Your task to perform on an android device: open the mobile data screen to see how much data has been used Image 0: 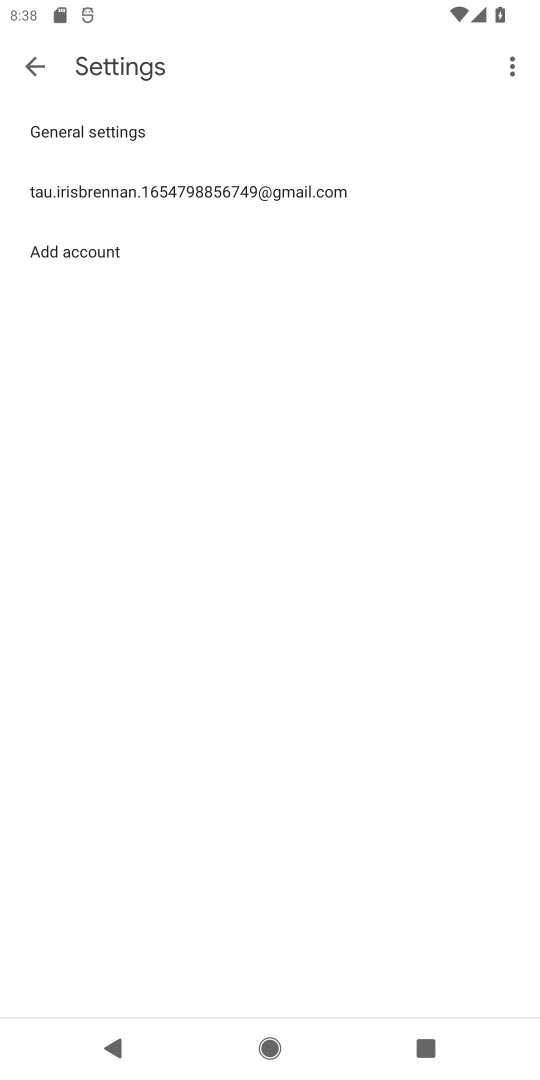
Step 0: click (26, 58)
Your task to perform on an android device: open the mobile data screen to see how much data has been used Image 1: 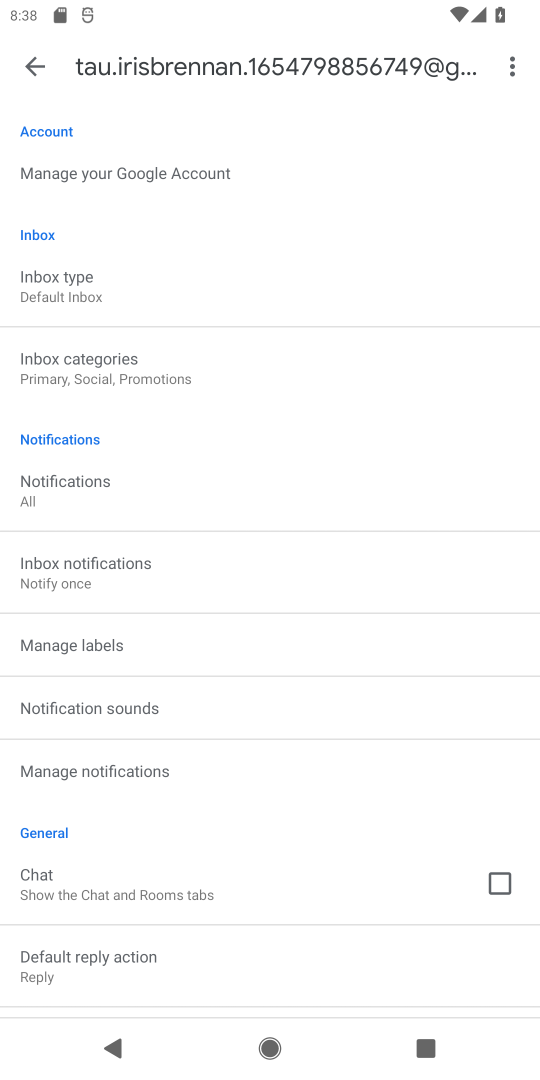
Step 1: click (36, 56)
Your task to perform on an android device: open the mobile data screen to see how much data has been used Image 2: 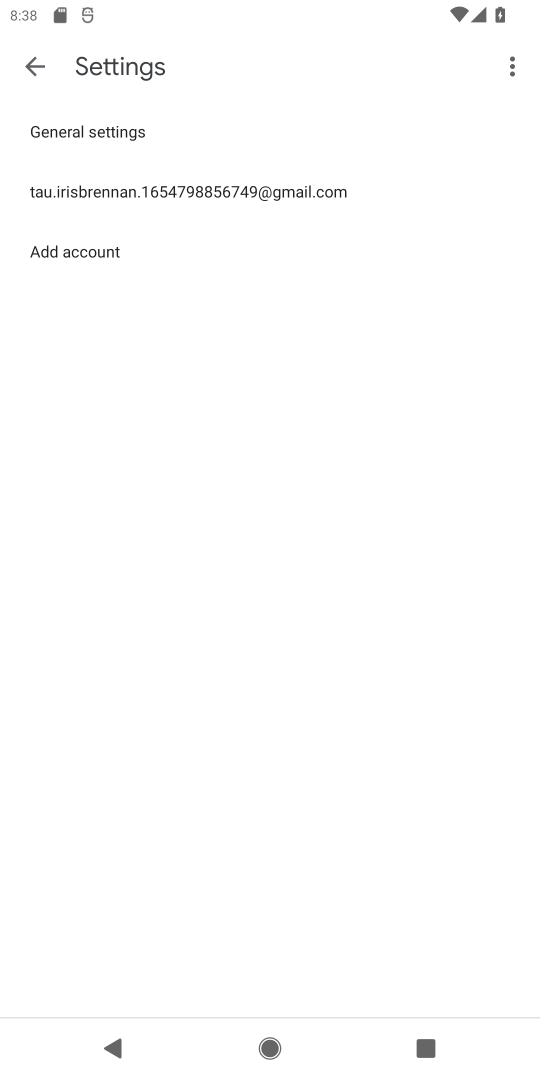
Step 2: click (43, 64)
Your task to perform on an android device: open the mobile data screen to see how much data has been used Image 3: 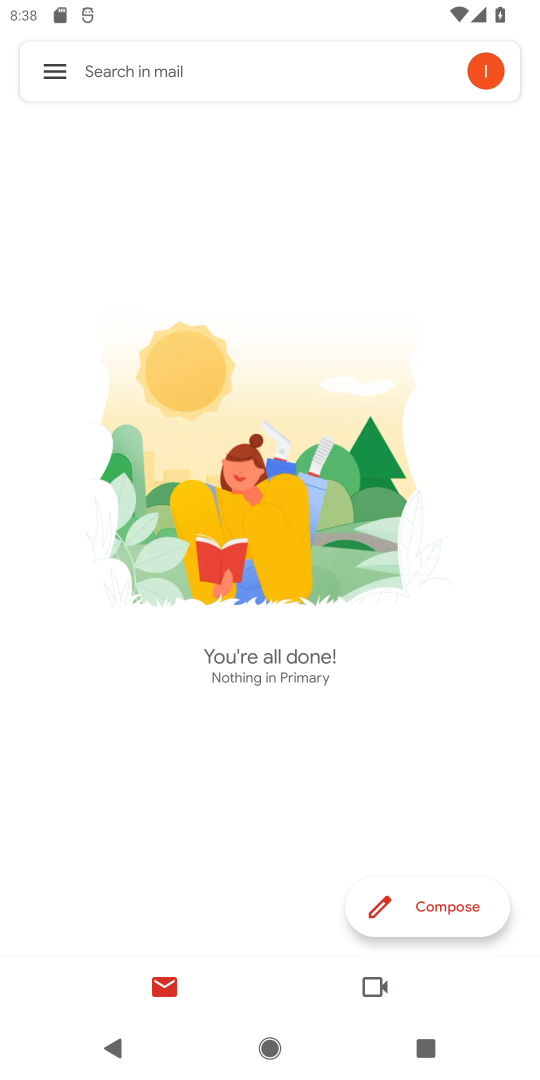
Step 3: press back button
Your task to perform on an android device: open the mobile data screen to see how much data has been used Image 4: 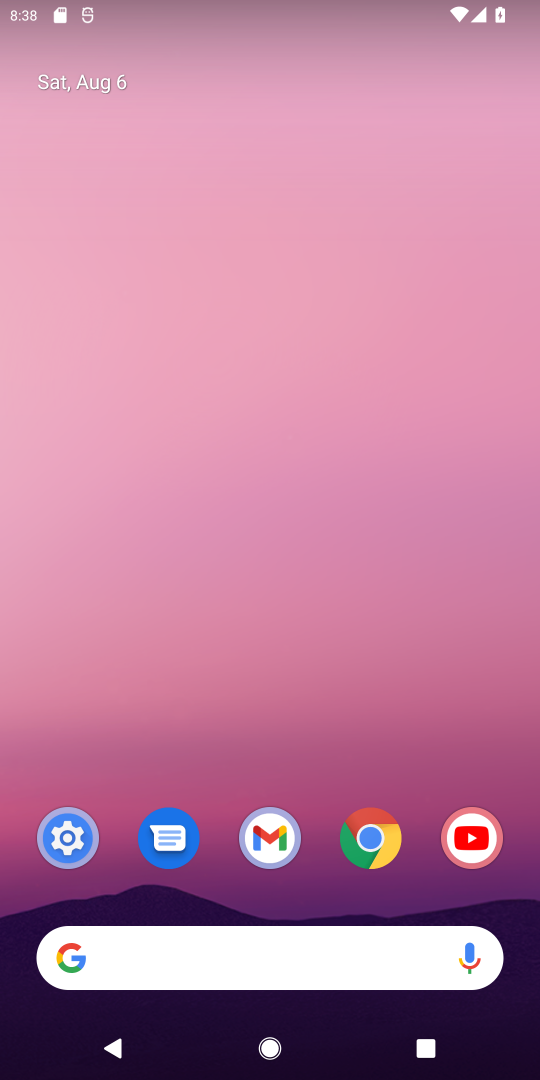
Step 4: drag from (215, 515) to (141, 244)
Your task to perform on an android device: open the mobile data screen to see how much data has been used Image 5: 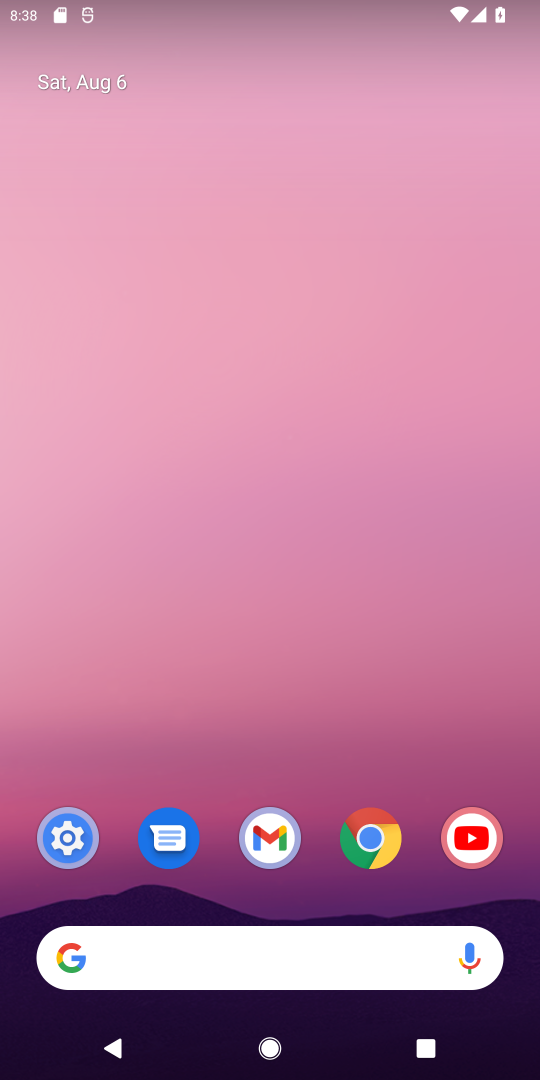
Step 5: drag from (341, 730) to (253, 165)
Your task to perform on an android device: open the mobile data screen to see how much data has been used Image 6: 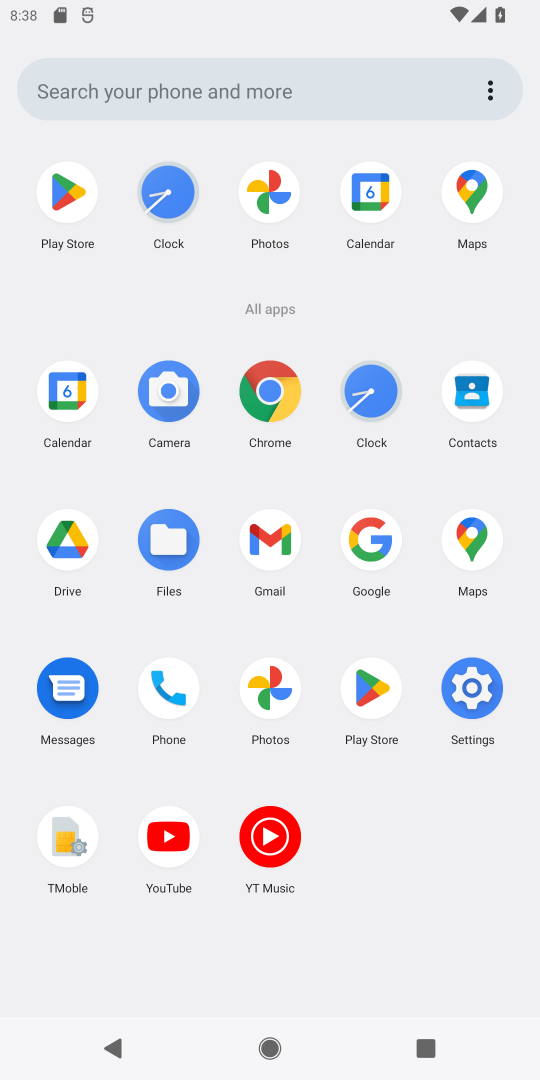
Step 6: click (475, 692)
Your task to perform on an android device: open the mobile data screen to see how much data has been used Image 7: 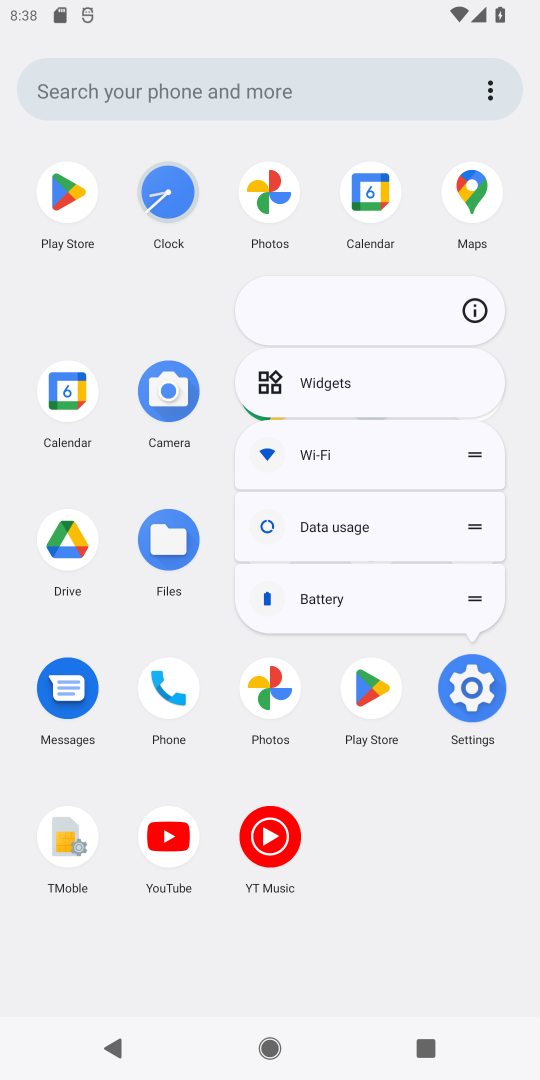
Step 7: click (475, 692)
Your task to perform on an android device: open the mobile data screen to see how much data has been used Image 8: 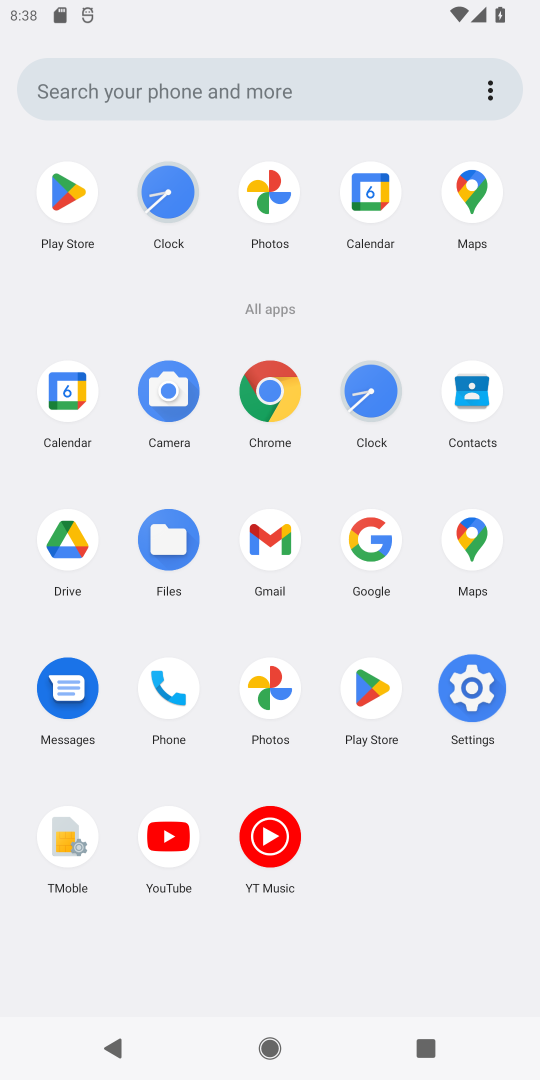
Step 8: click (475, 690)
Your task to perform on an android device: open the mobile data screen to see how much data has been used Image 9: 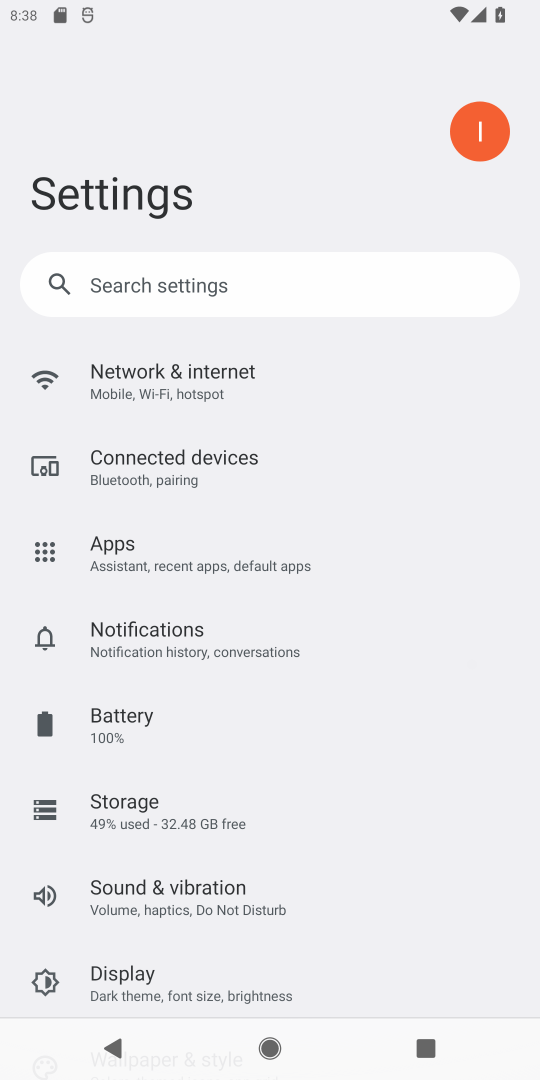
Step 9: click (476, 688)
Your task to perform on an android device: open the mobile data screen to see how much data has been used Image 10: 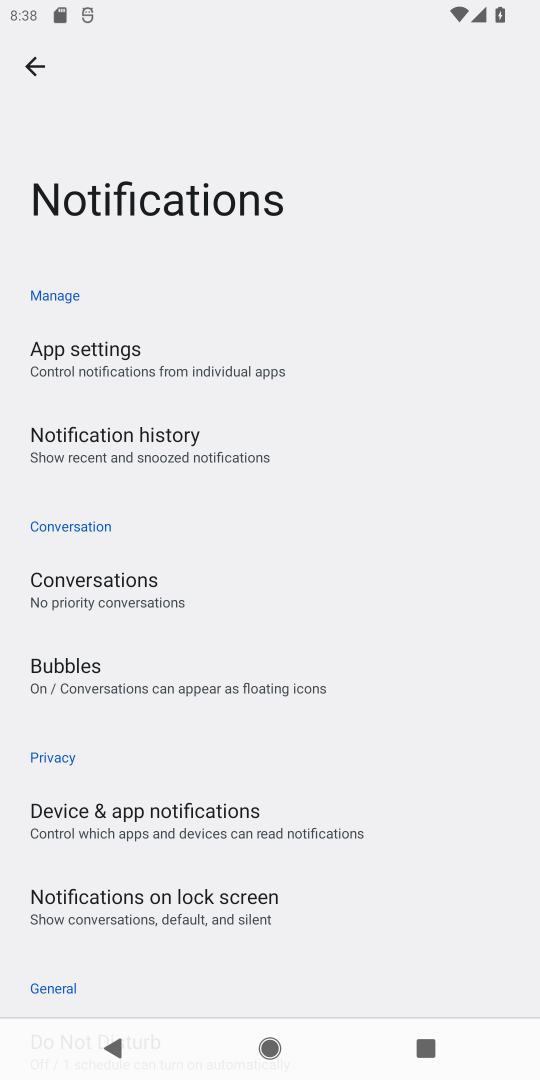
Step 10: click (30, 61)
Your task to perform on an android device: open the mobile data screen to see how much data has been used Image 11: 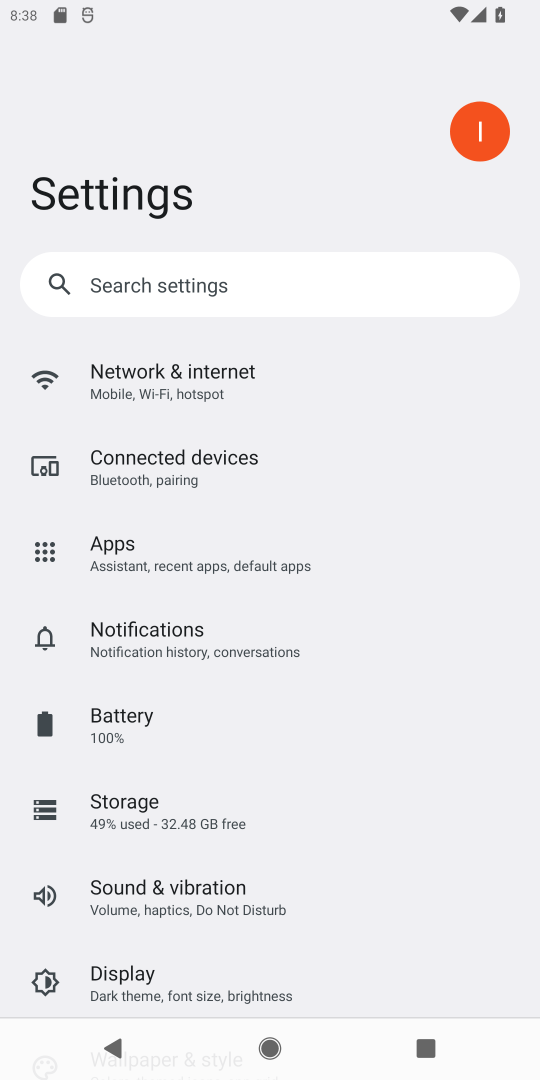
Step 11: click (154, 390)
Your task to perform on an android device: open the mobile data screen to see how much data has been used Image 12: 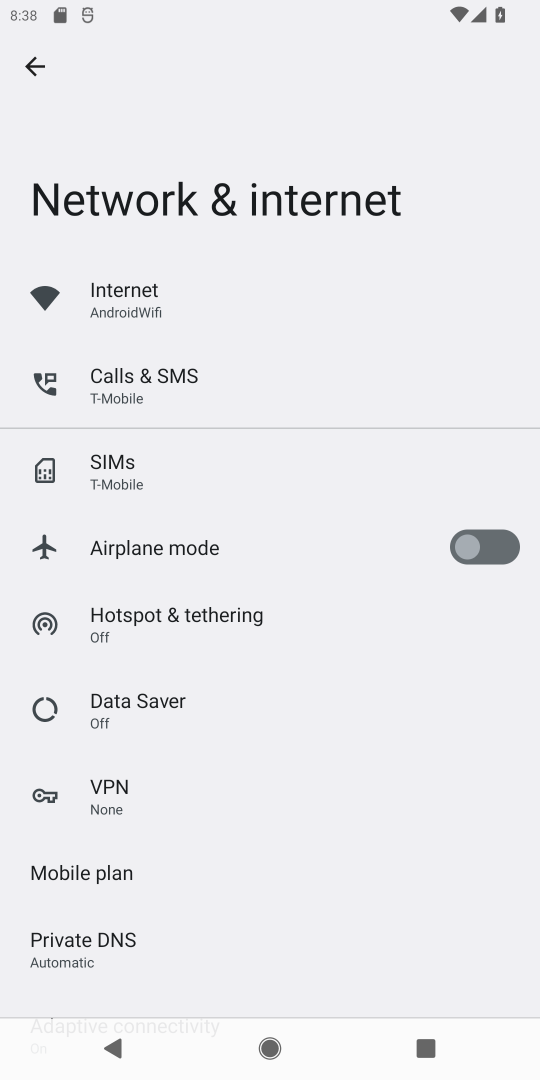
Step 12: click (147, 288)
Your task to perform on an android device: open the mobile data screen to see how much data has been used Image 13: 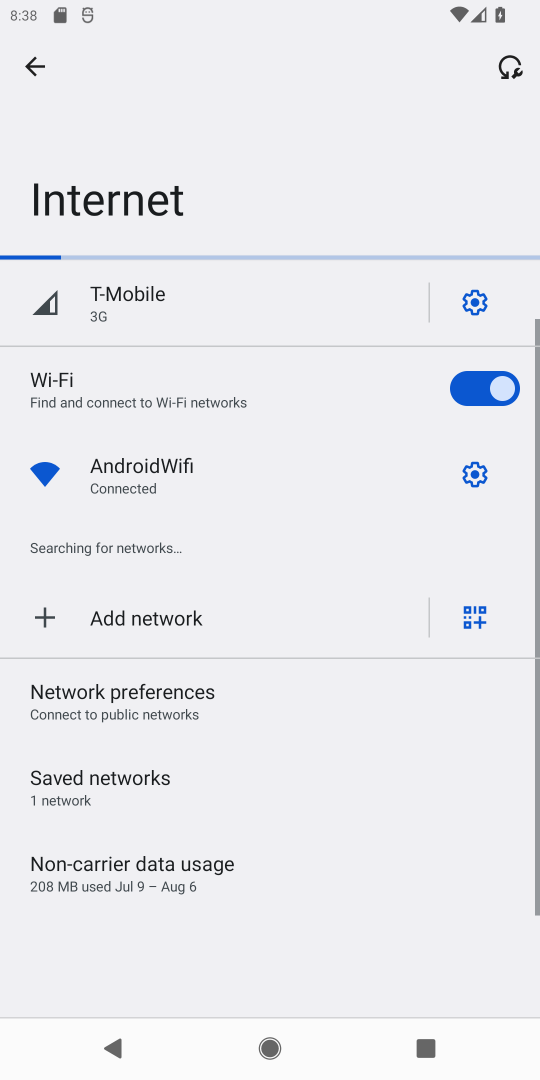
Step 13: click (23, 67)
Your task to perform on an android device: open the mobile data screen to see how much data has been used Image 14: 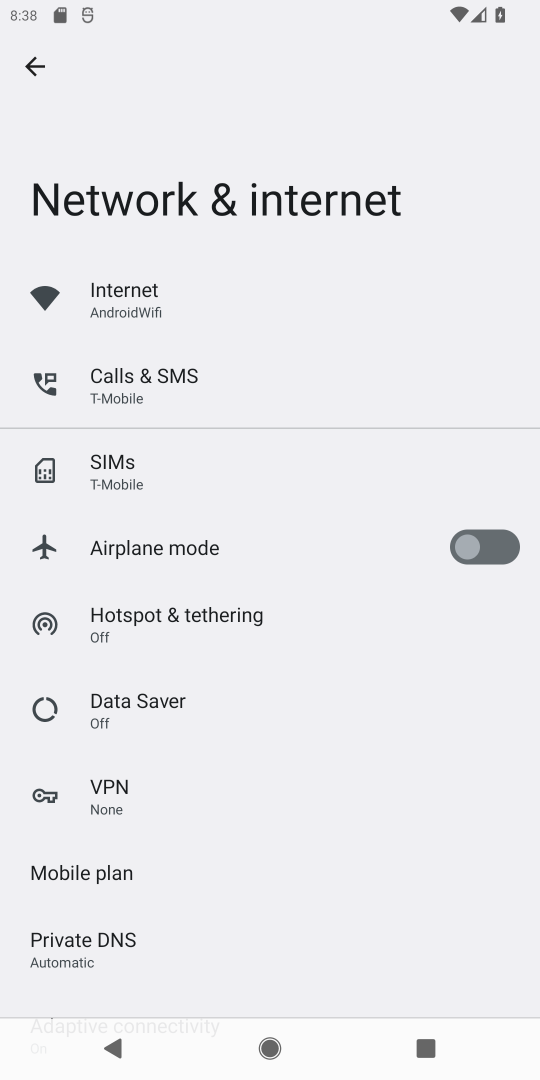
Step 14: task complete